Your task to perform on an android device: Search for hotels in Boston Image 0: 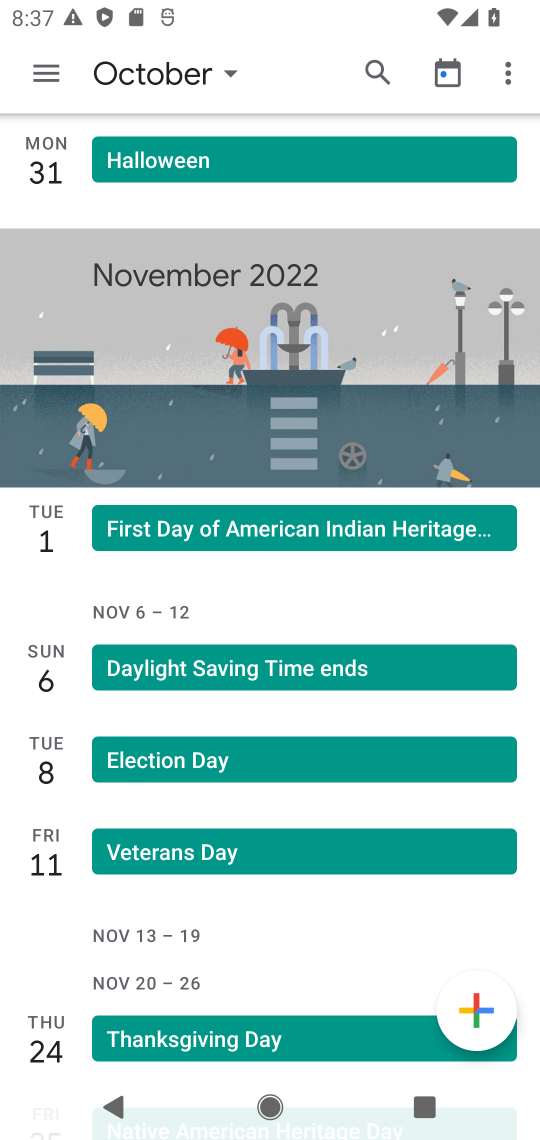
Step 0: press home button
Your task to perform on an android device: Search for hotels in Boston Image 1: 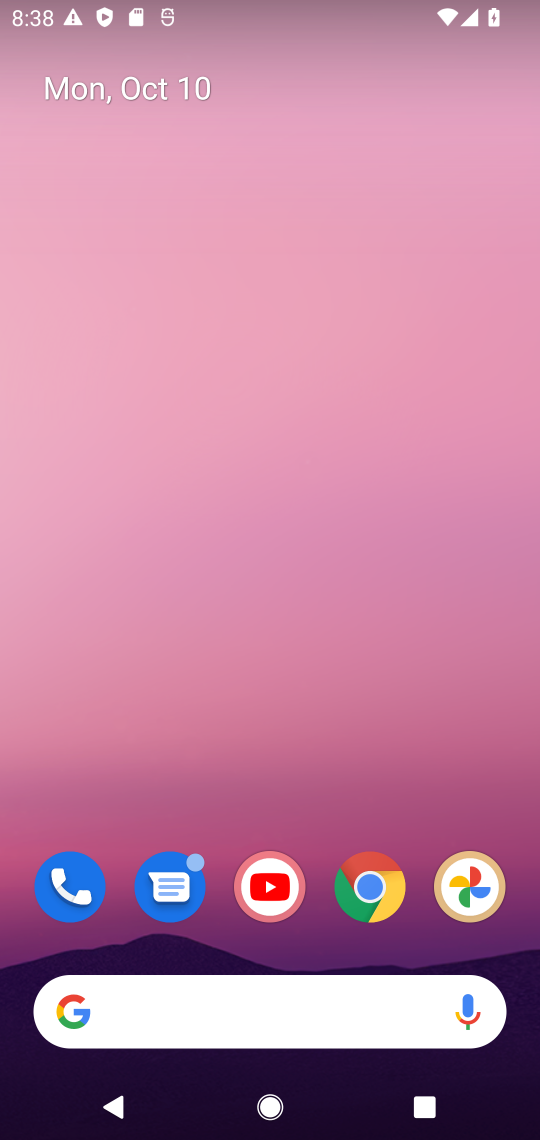
Step 1: click (366, 886)
Your task to perform on an android device: Search for hotels in Boston Image 2: 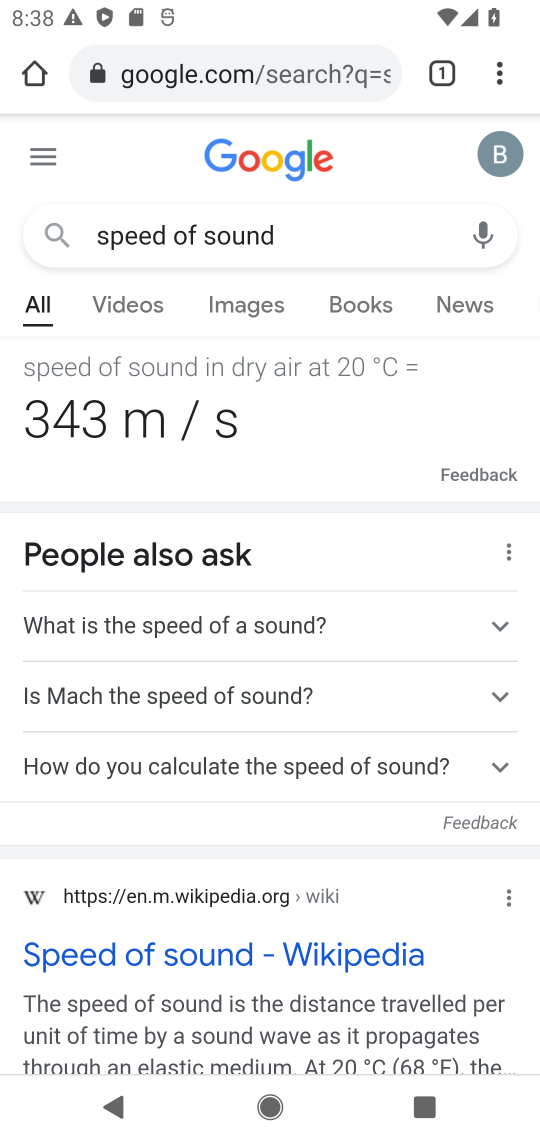
Step 2: click (291, 78)
Your task to perform on an android device: Search for hotels in Boston Image 3: 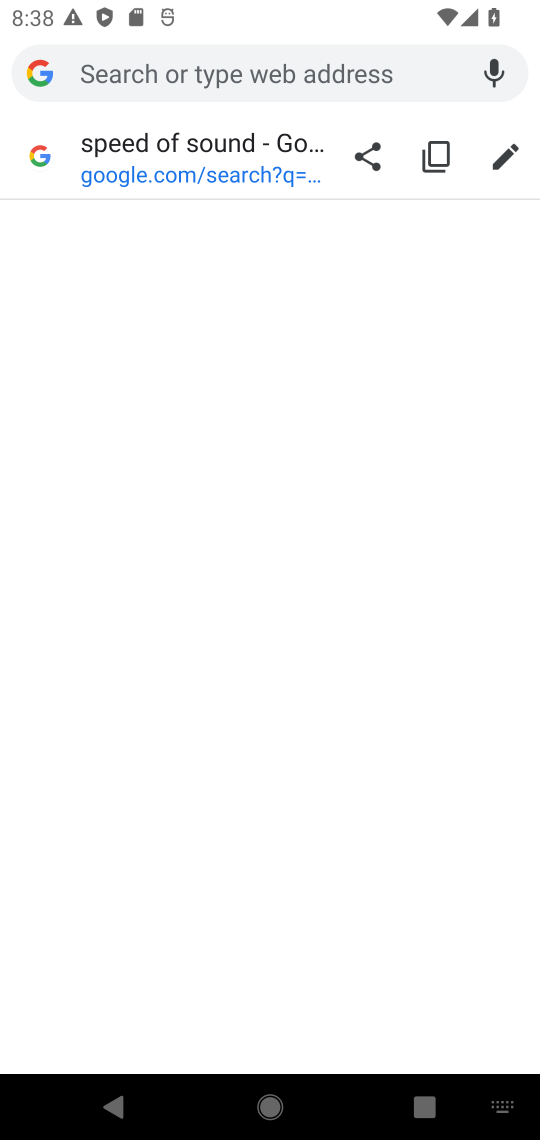
Step 3: type "hotels in boston"
Your task to perform on an android device: Search for hotels in Boston Image 4: 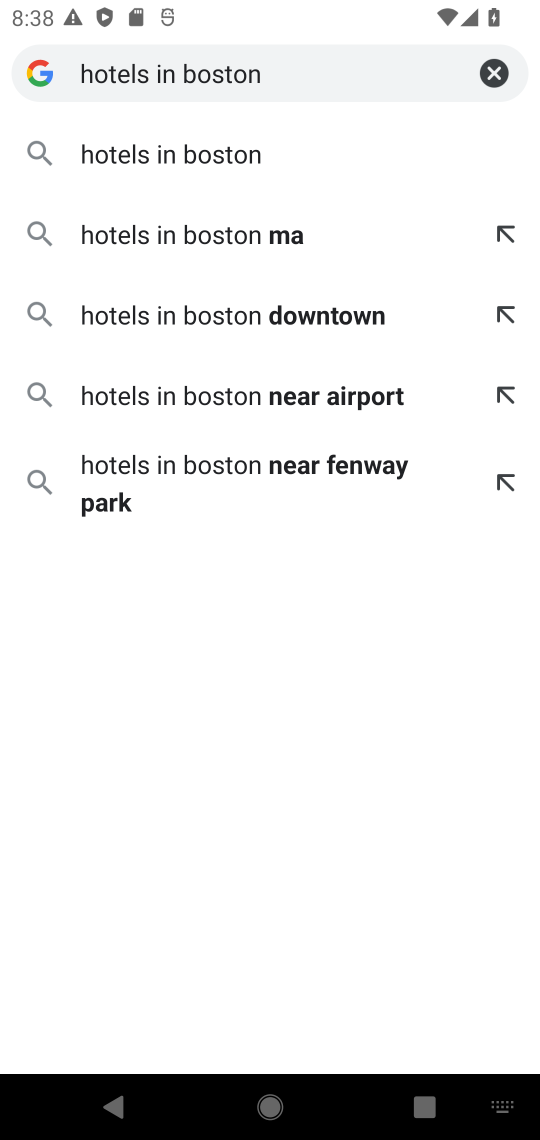
Step 4: click (285, 139)
Your task to perform on an android device: Search for hotels in Boston Image 5: 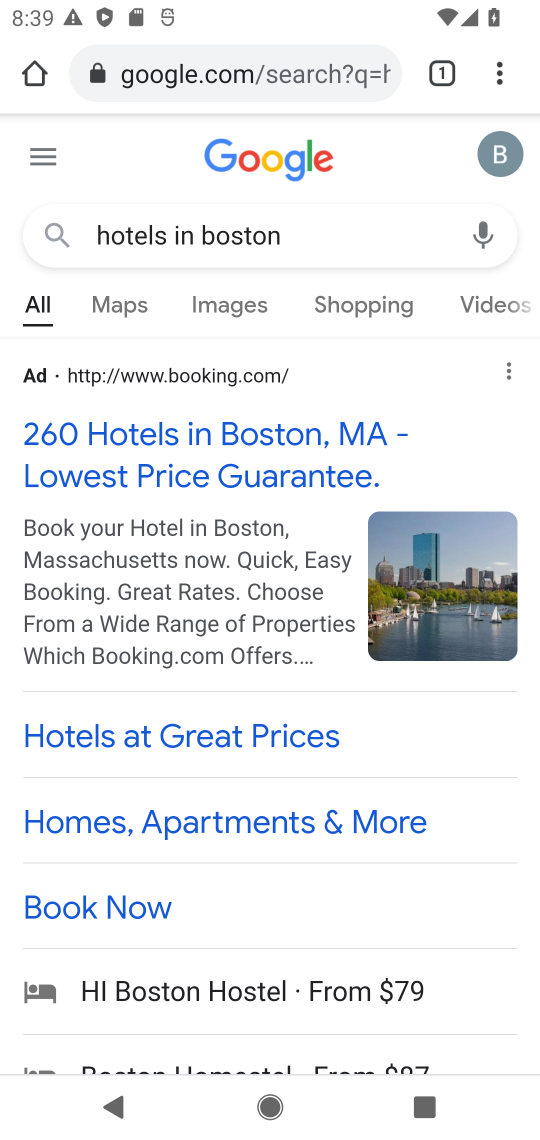
Step 5: task complete